Your task to perform on an android device: change keyboard looks Image 0: 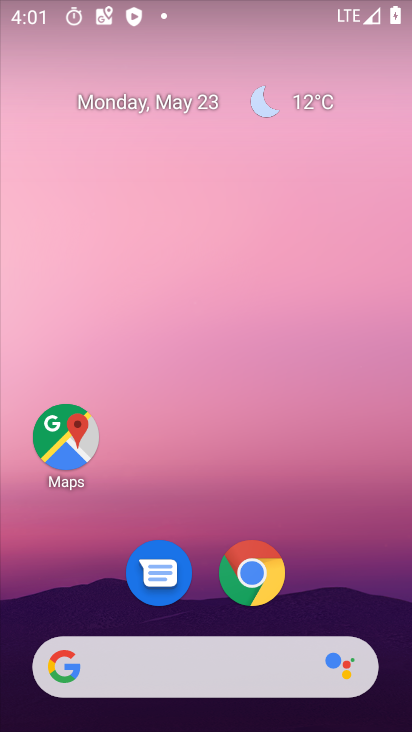
Step 0: drag from (14, 603) to (284, 139)
Your task to perform on an android device: change keyboard looks Image 1: 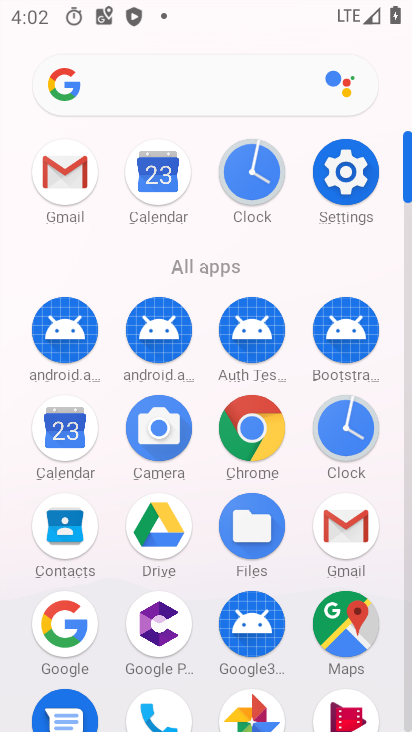
Step 1: click (352, 163)
Your task to perform on an android device: change keyboard looks Image 2: 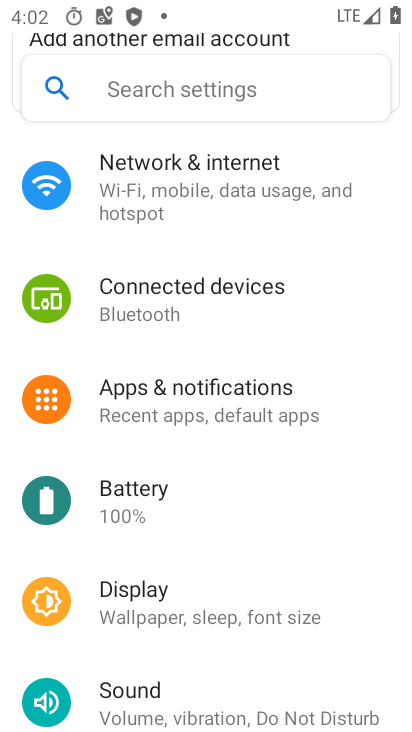
Step 2: drag from (9, 481) to (190, 107)
Your task to perform on an android device: change keyboard looks Image 3: 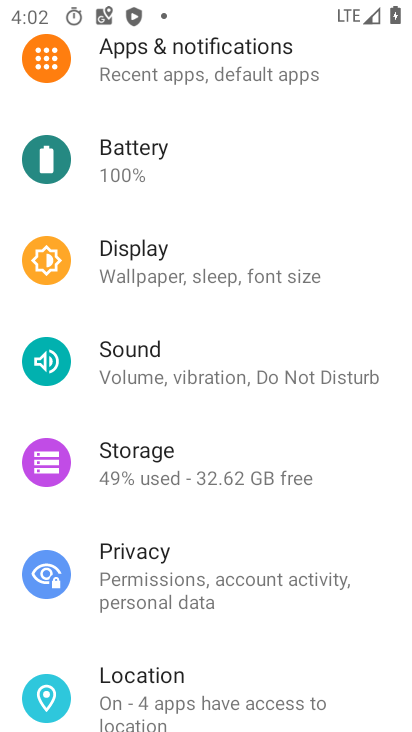
Step 3: drag from (0, 578) to (187, 134)
Your task to perform on an android device: change keyboard looks Image 4: 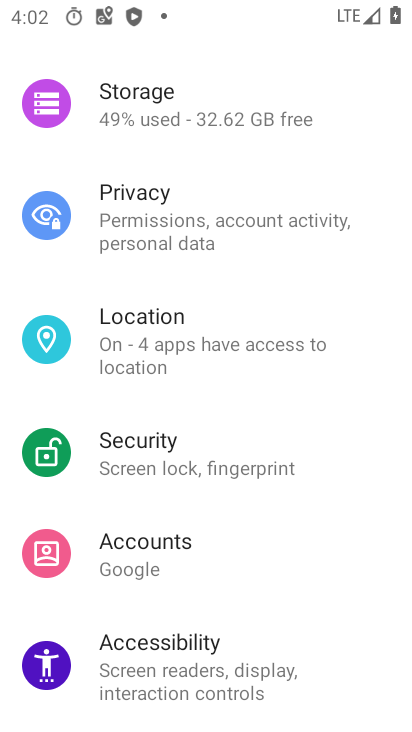
Step 4: drag from (169, 684) to (313, 125)
Your task to perform on an android device: change keyboard looks Image 5: 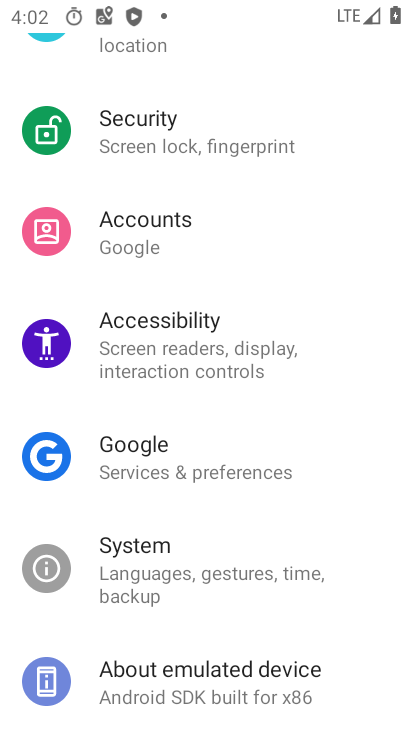
Step 5: click (178, 577)
Your task to perform on an android device: change keyboard looks Image 6: 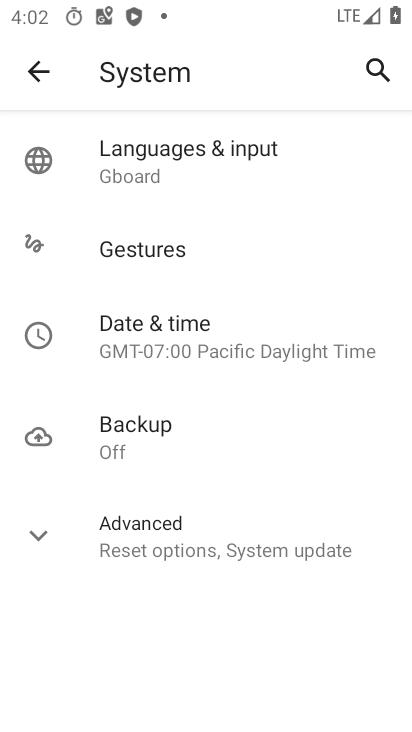
Step 6: click (150, 163)
Your task to perform on an android device: change keyboard looks Image 7: 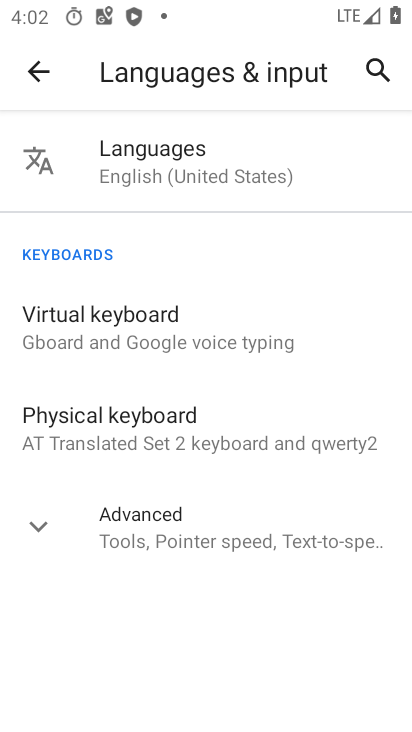
Step 7: click (163, 523)
Your task to perform on an android device: change keyboard looks Image 8: 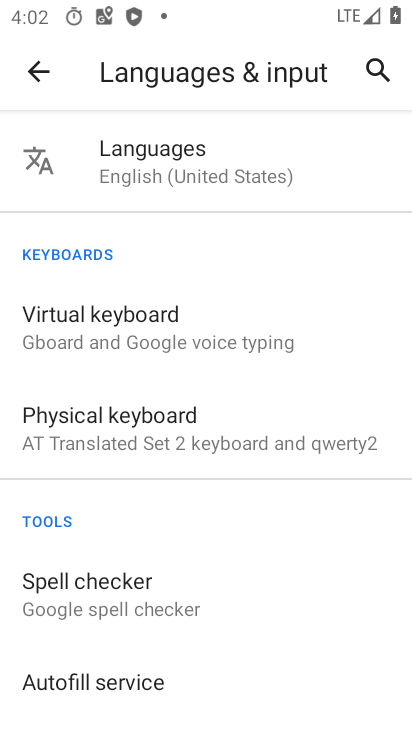
Step 8: click (152, 335)
Your task to perform on an android device: change keyboard looks Image 9: 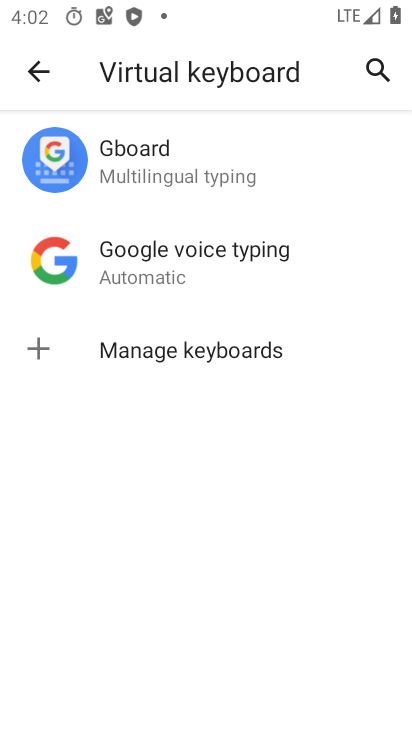
Step 9: task complete